Your task to perform on an android device: open app "ColorNote Notepad Notes" Image 0: 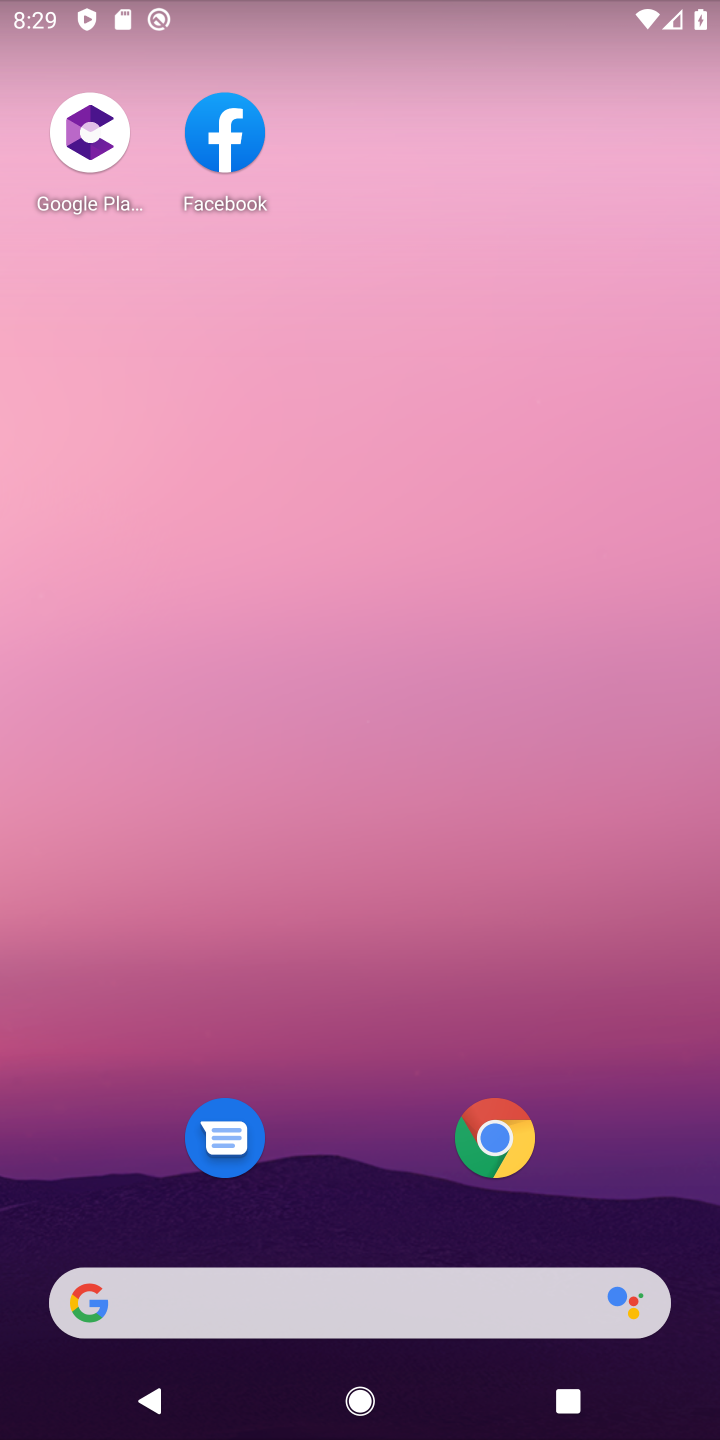
Step 0: drag from (374, 857) to (436, 385)
Your task to perform on an android device: open app "ColorNote Notepad Notes" Image 1: 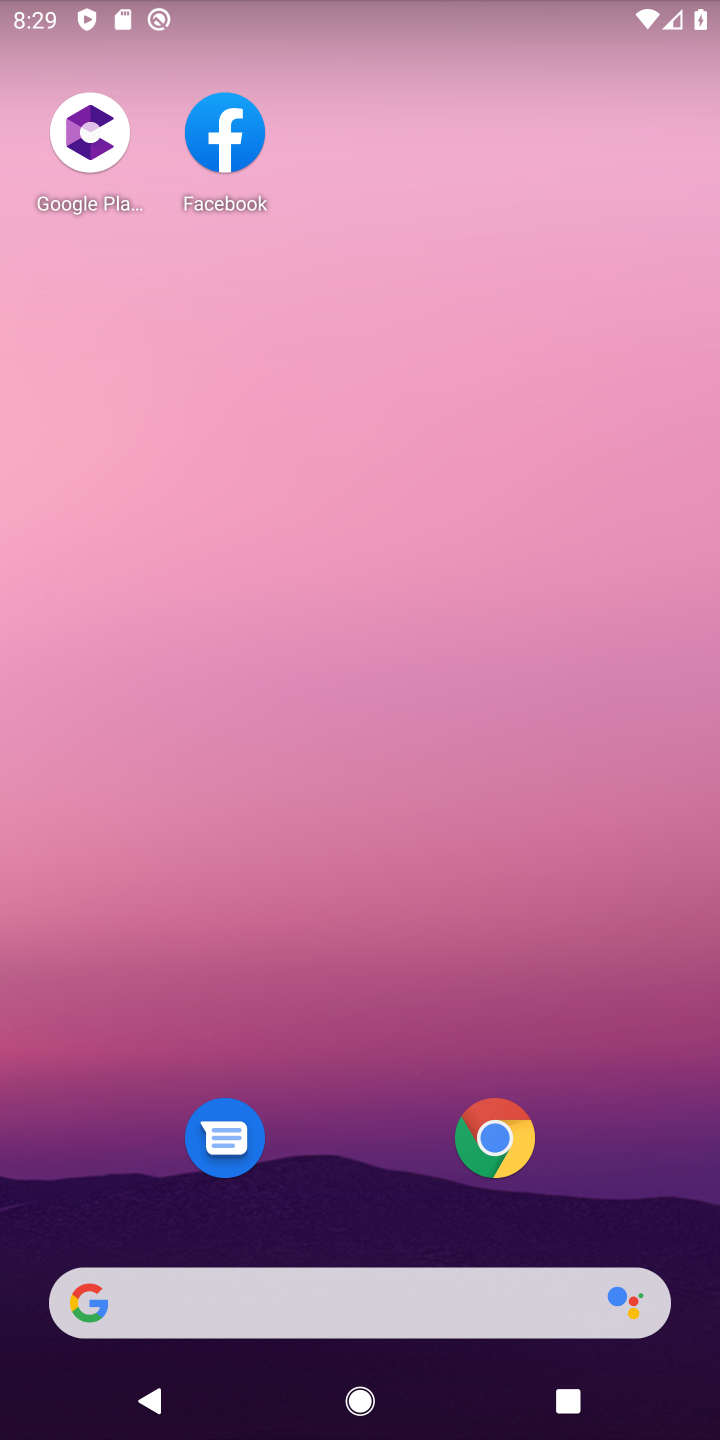
Step 1: drag from (347, 1142) to (449, 318)
Your task to perform on an android device: open app "ColorNote Notepad Notes" Image 2: 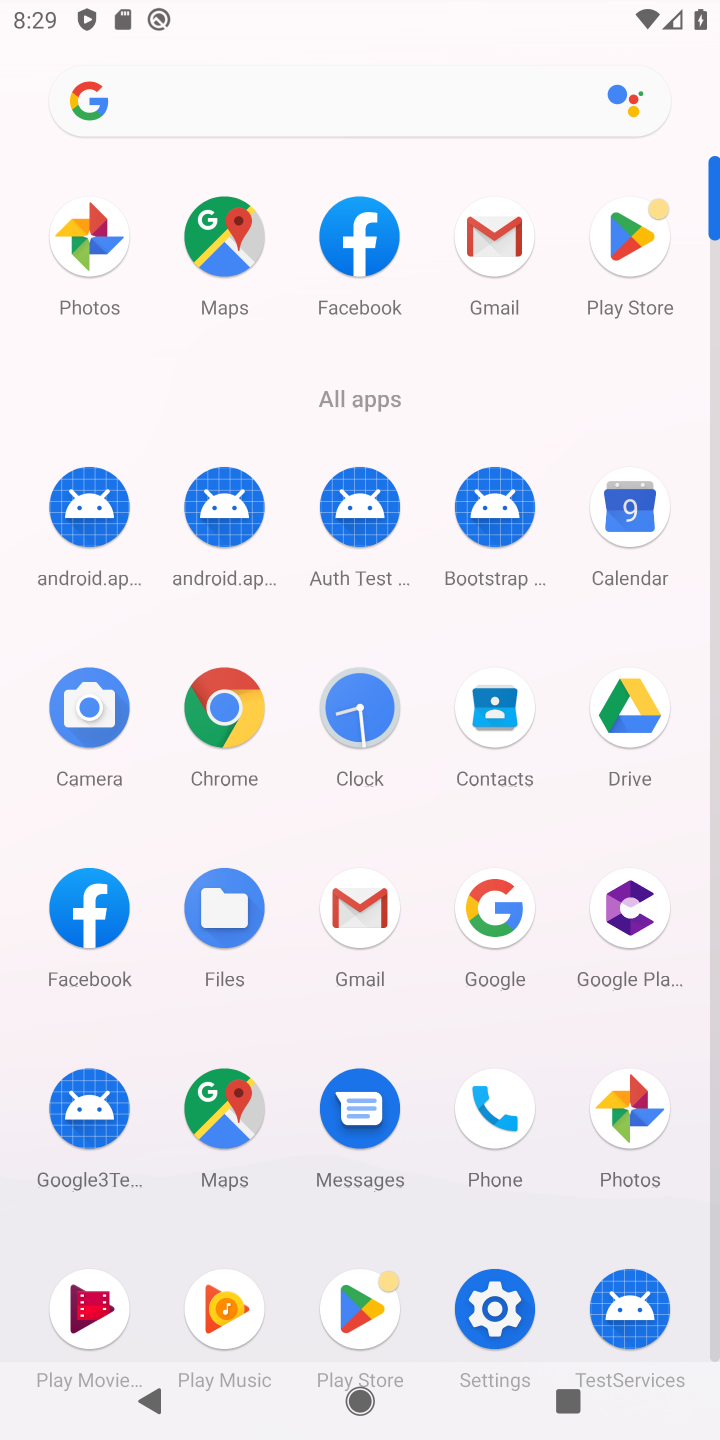
Step 2: click (631, 260)
Your task to perform on an android device: open app "ColorNote Notepad Notes" Image 3: 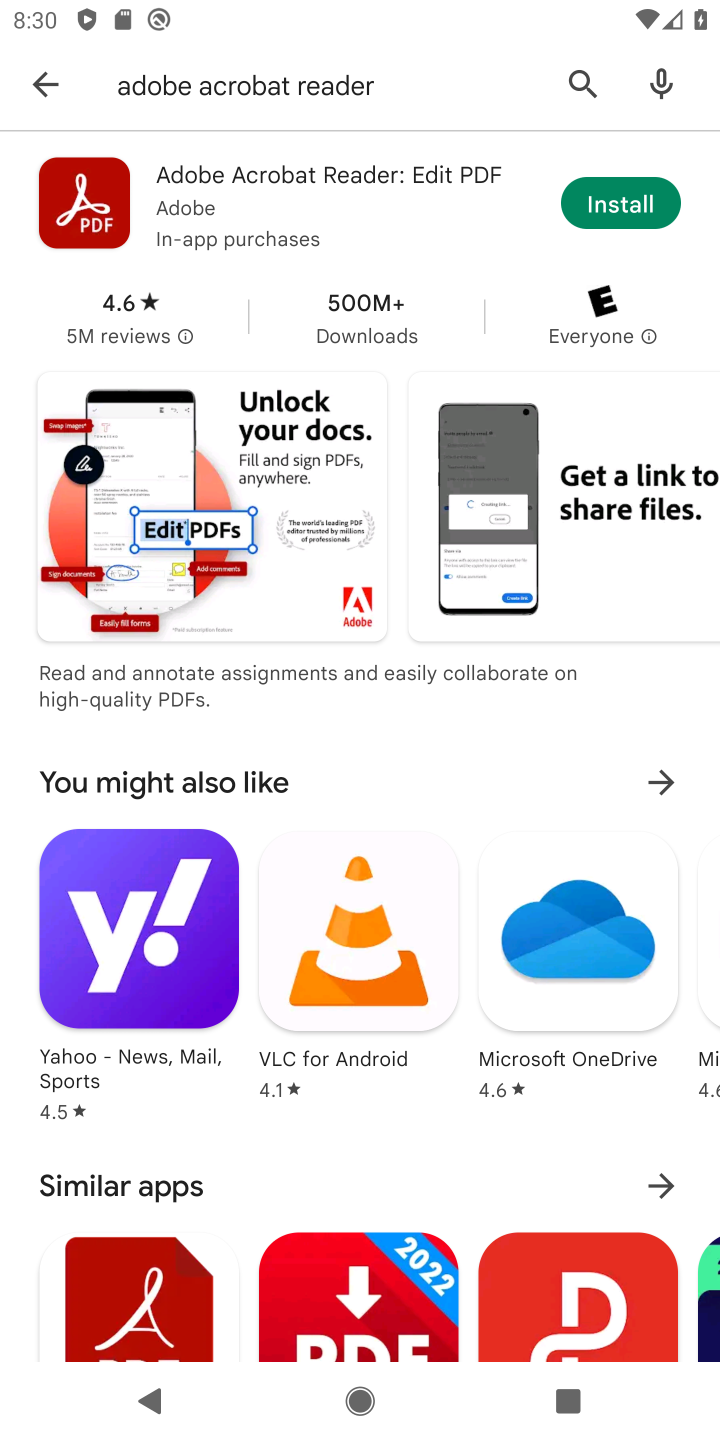
Step 3: click (573, 66)
Your task to perform on an android device: open app "ColorNote Notepad Notes" Image 4: 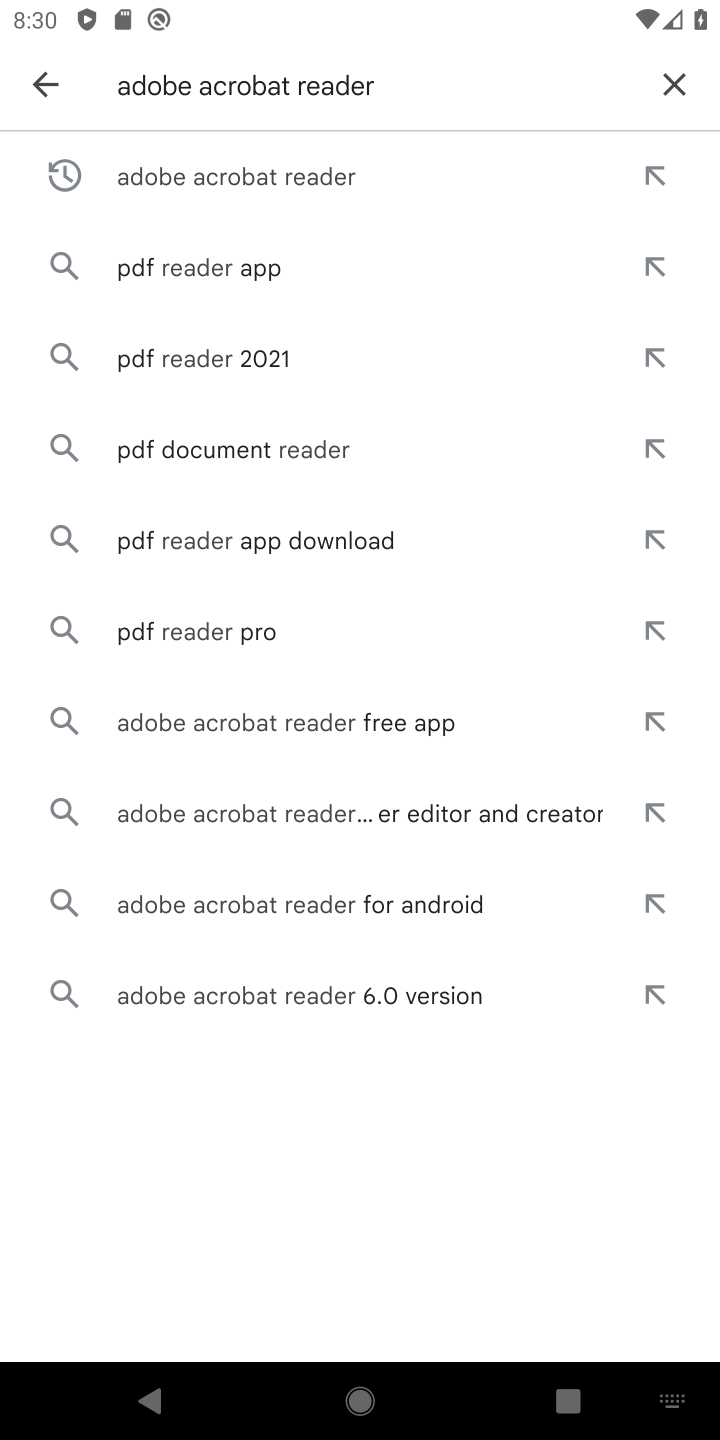
Step 4: click (682, 81)
Your task to perform on an android device: open app "ColorNote Notepad Notes" Image 5: 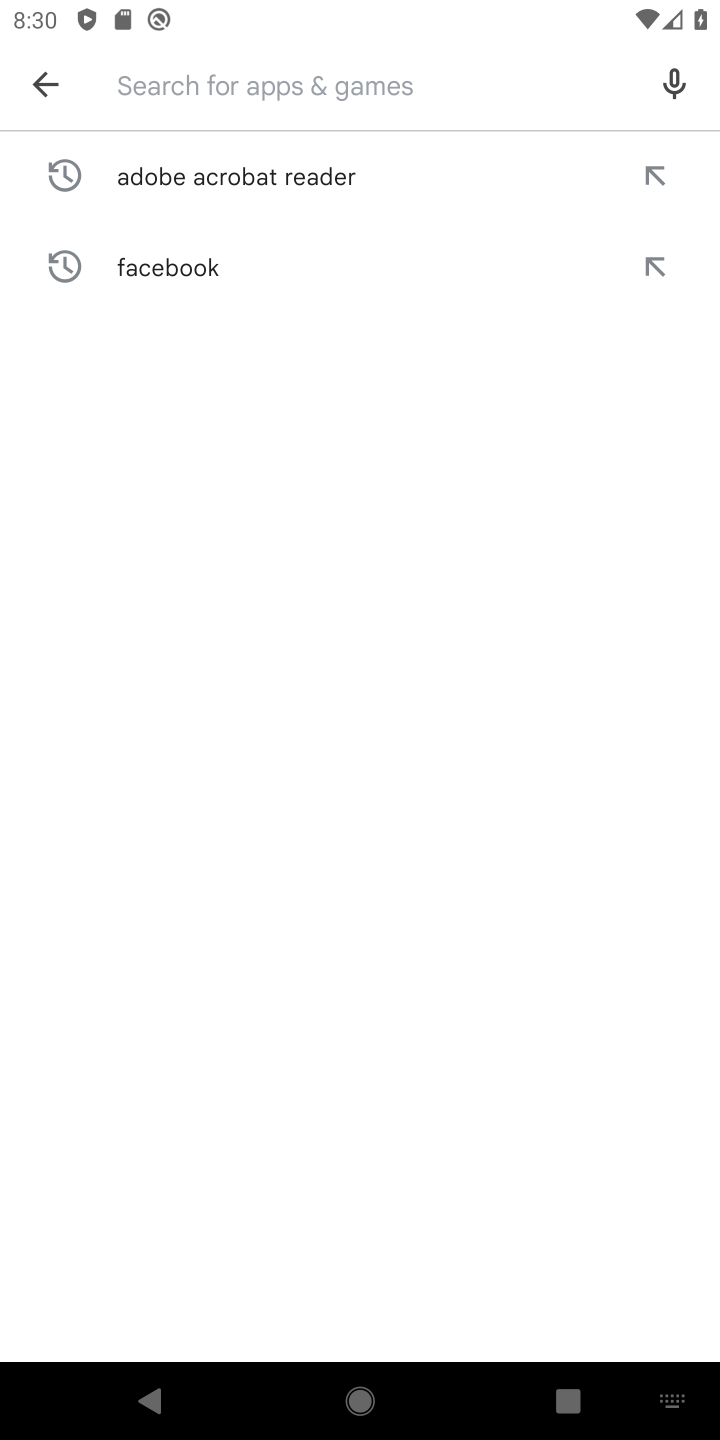
Step 5: type "ColorNote Notepad Notes"
Your task to perform on an android device: open app "ColorNote Notepad Notes" Image 6: 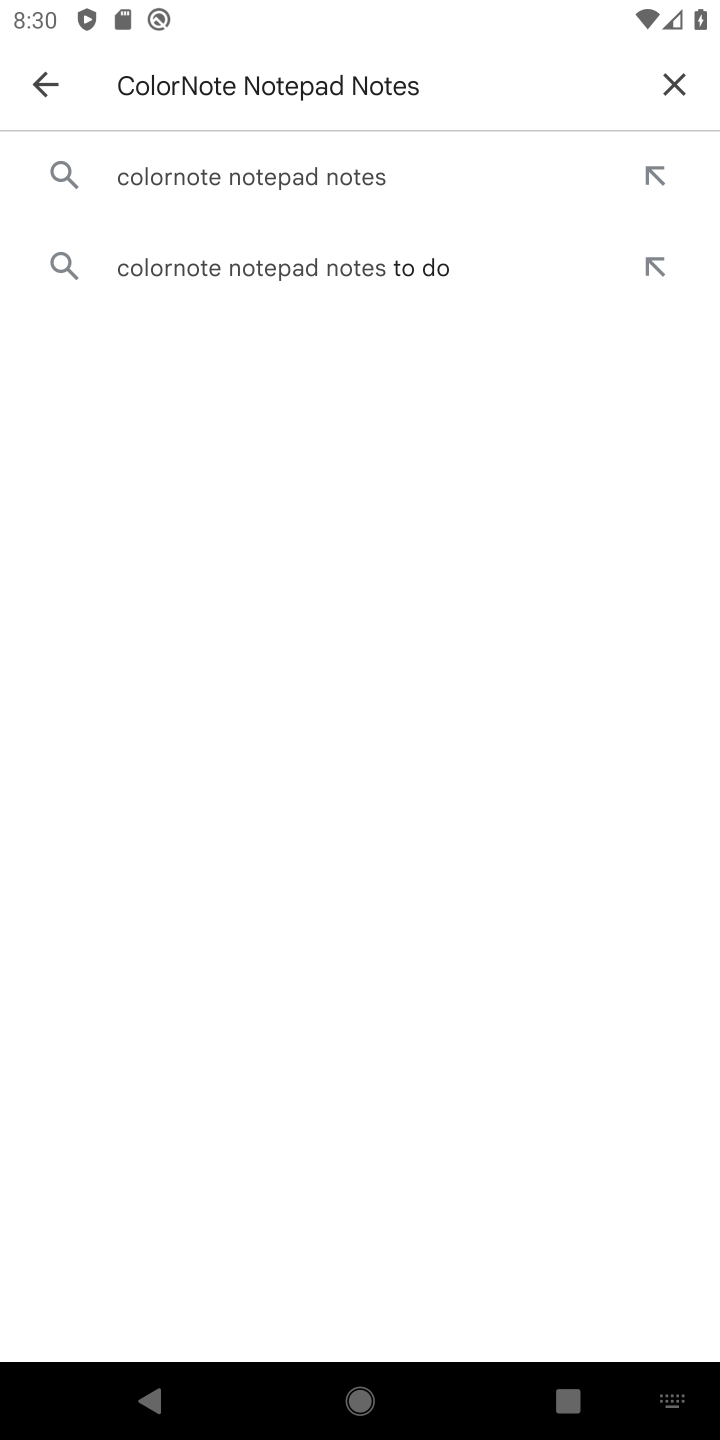
Step 6: click (306, 162)
Your task to perform on an android device: open app "ColorNote Notepad Notes" Image 7: 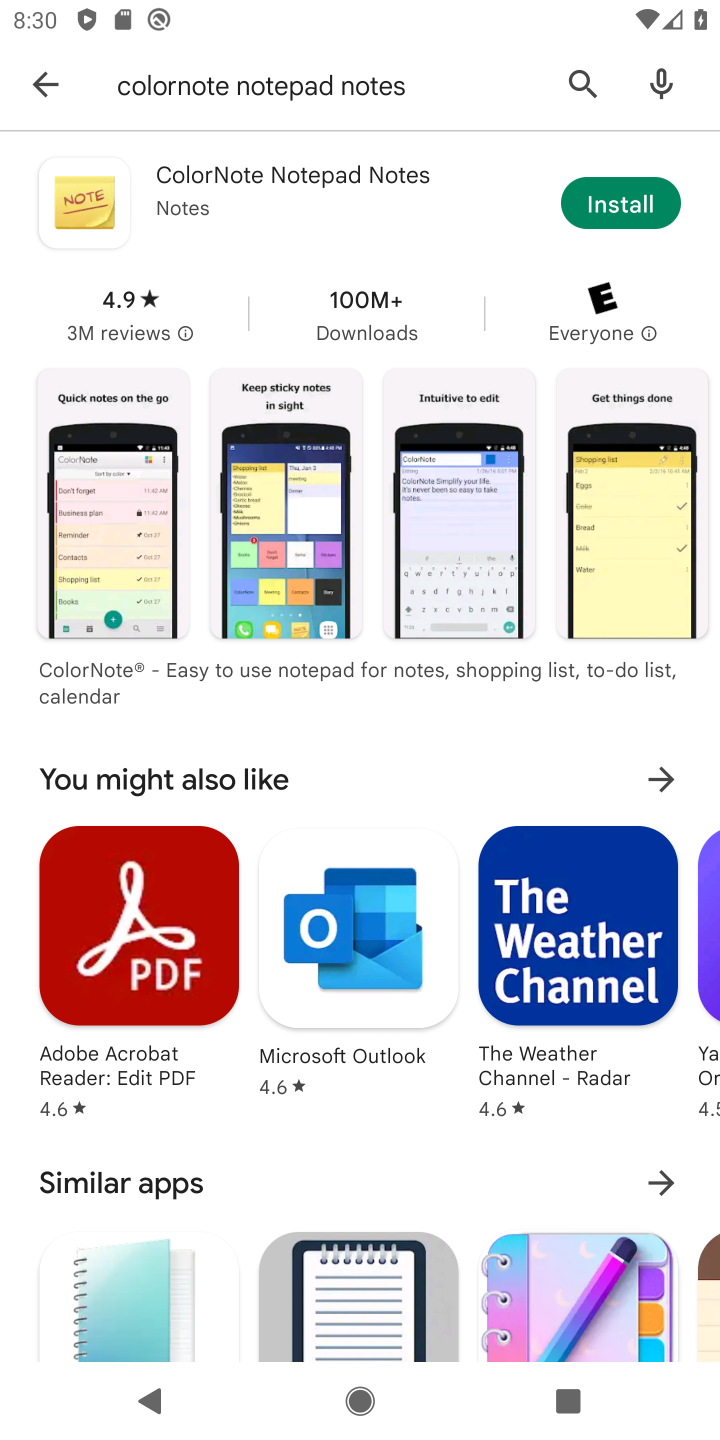
Step 7: task complete